Your task to perform on an android device: Search for seafood restaurants on Google Maps Image 0: 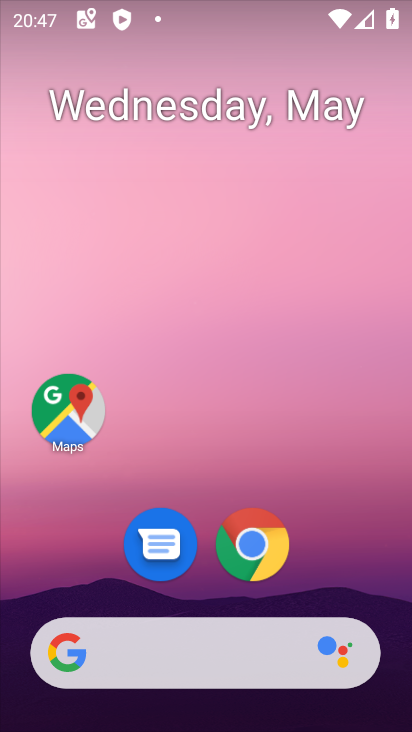
Step 0: click (56, 412)
Your task to perform on an android device: Search for seafood restaurants on Google Maps Image 1: 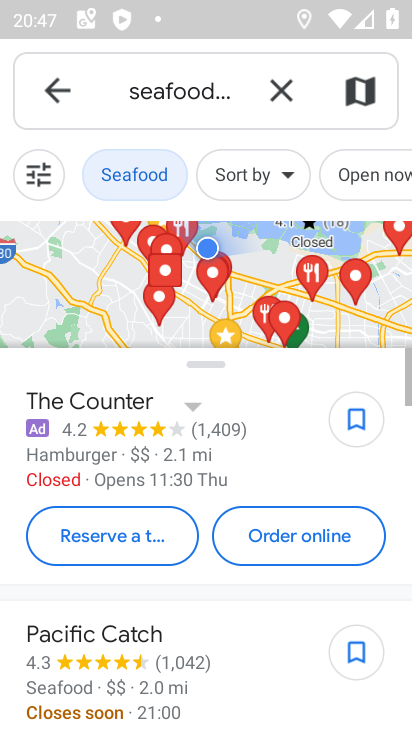
Step 1: task complete